Your task to perform on an android device: check google app version Image 0: 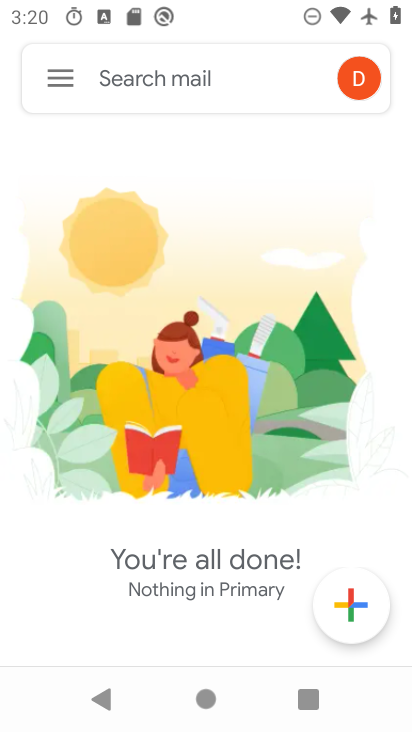
Step 0: press home button
Your task to perform on an android device: check google app version Image 1: 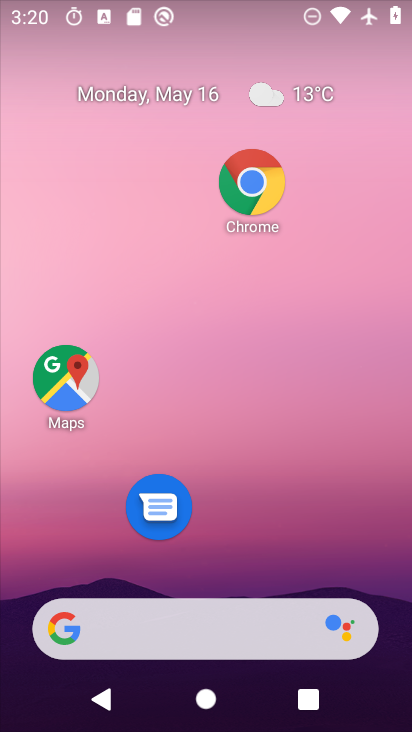
Step 1: drag from (280, 554) to (187, 122)
Your task to perform on an android device: check google app version Image 2: 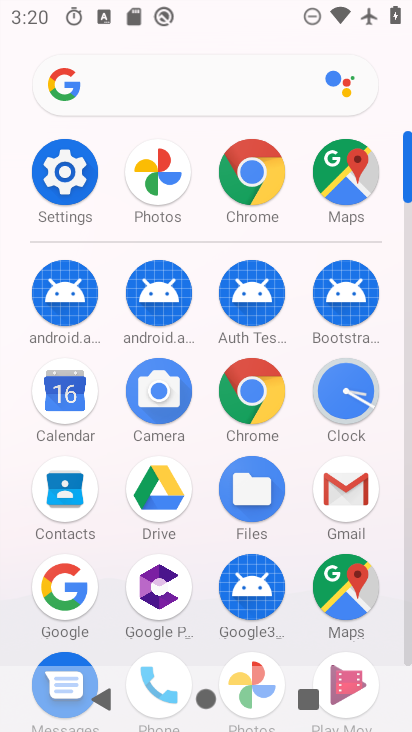
Step 2: drag from (213, 277) to (213, 40)
Your task to perform on an android device: check google app version Image 3: 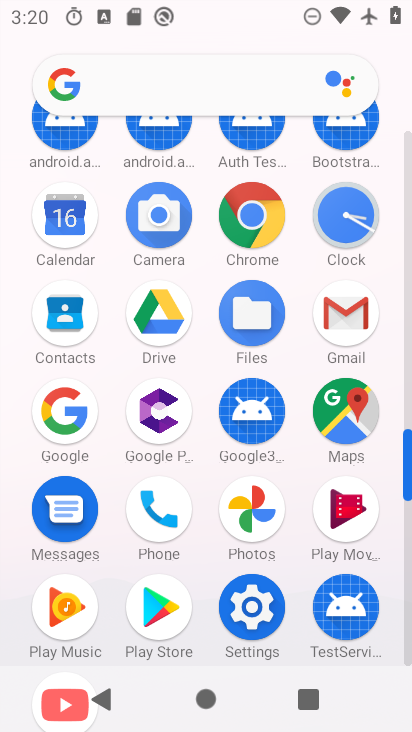
Step 3: click (77, 415)
Your task to perform on an android device: check google app version Image 4: 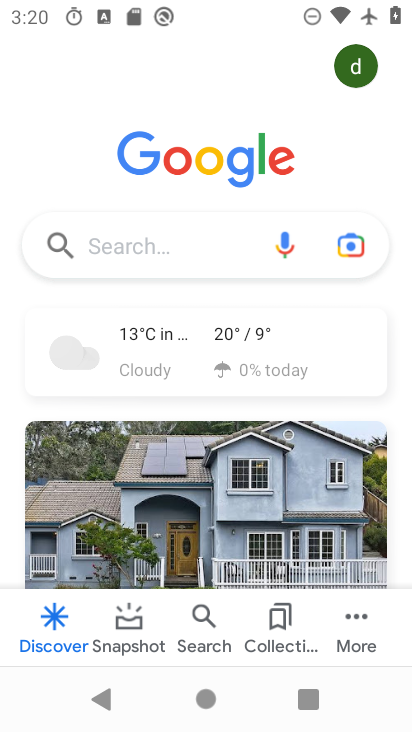
Step 4: click (366, 639)
Your task to perform on an android device: check google app version Image 5: 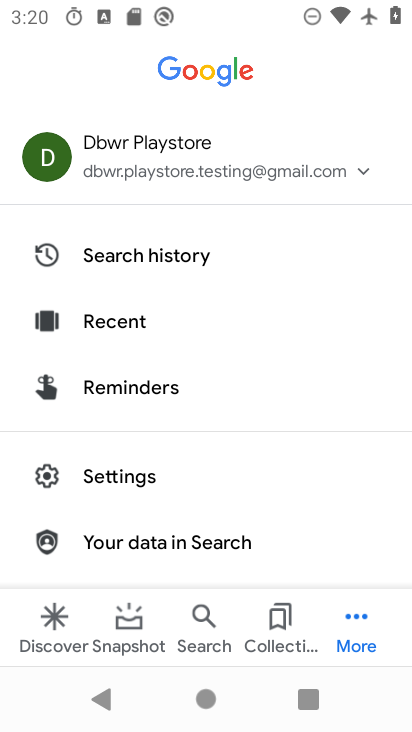
Step 5: click (192, 485)
Your task to perform on an android device: check google app version Image 6: 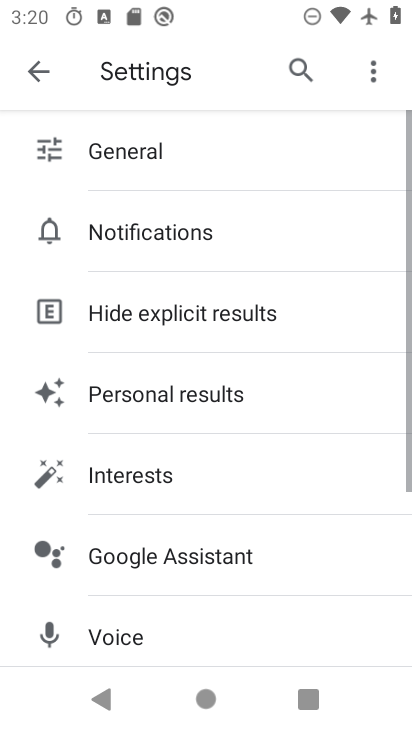
Step 6: drag from (219, 601) to (248, 216)
Your task to perform on an android device: check google app version Image 7: 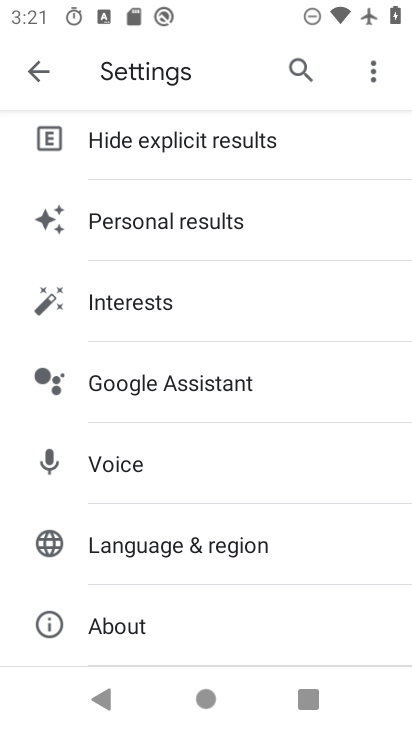
Step 7: click (137, 630)
Your task to perform on an android device: check google app version Image 8: 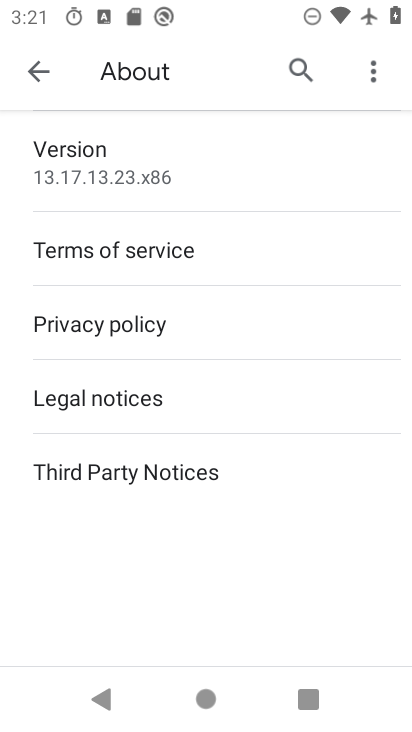
Step 8: click (219, 172)
Your task to perform on an android device: check google app version Image 9: 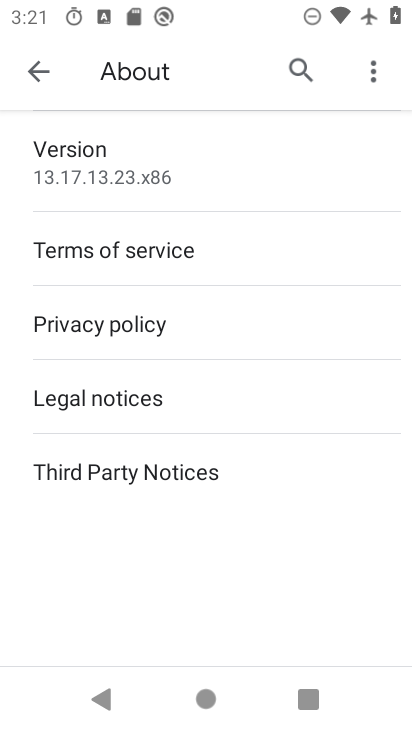
Step 9: click (207, 184)
Your task to perform on an android device: check google app version Image 10: 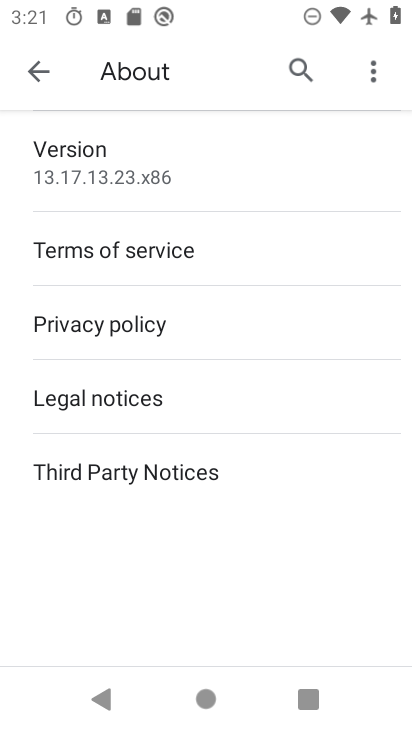
Step 10: click (207, 184)
Your task to perform on an android device: check google app version Image 11: 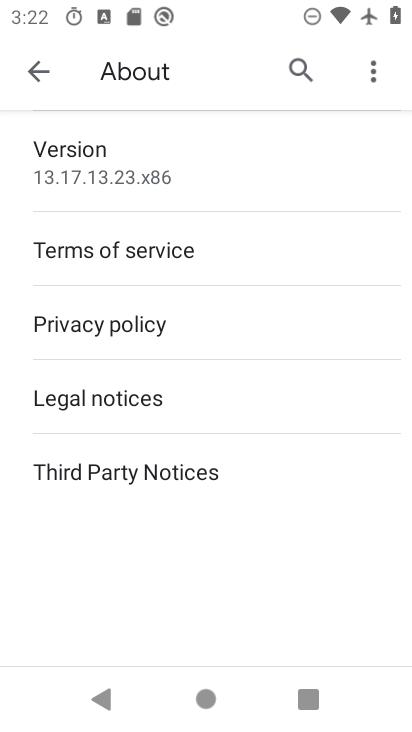
Step 11: task complete